Your task to perform on an android device: Open settings Image 0: 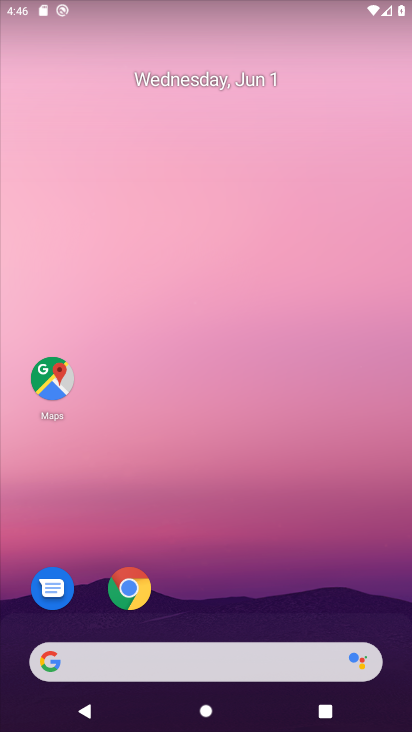
Step 0: drag from (247, 586) to (230, 7)
Your task to perform on an android device: Open settings Image 1: 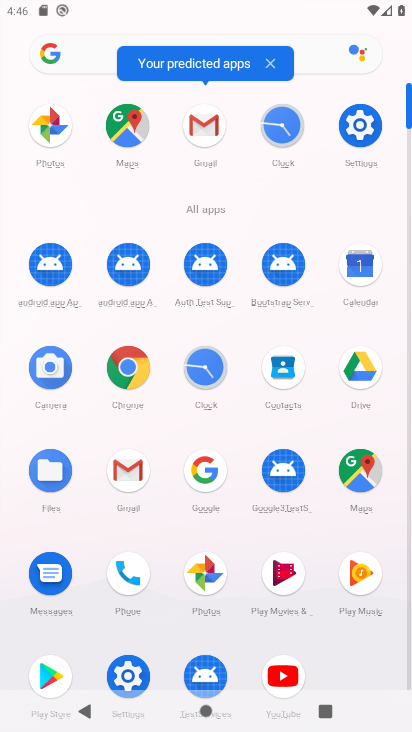
Step 1: click (350, 131)
Your task to perform on an android device: Open settings Image 2: 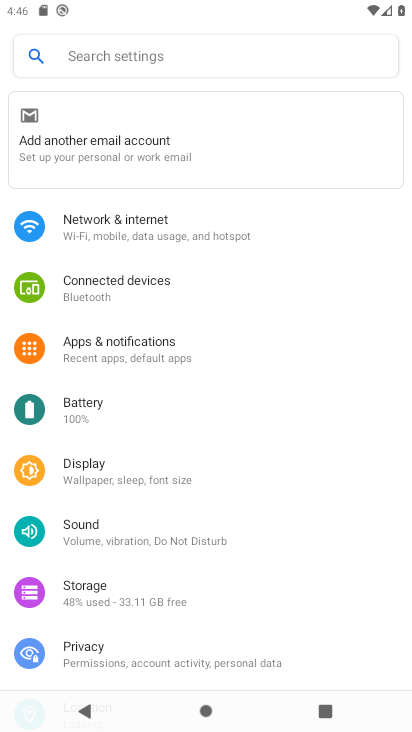
Step 2: task complete